Your task to perform on an android device: Show me popular games on the Play Store Image 0: 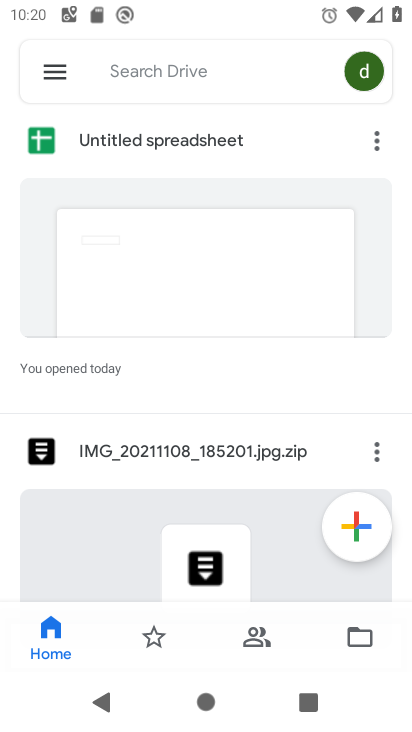
Step 0: press home button
Your task to perform on an android device: Show me popular games on the Play Store Image 1: 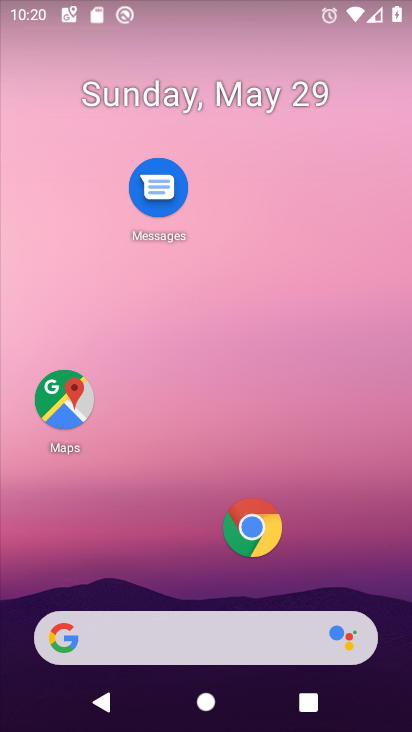
Step 1: drag from (194, 586) to (243, 4)
Your task to perform on an android device: Show me popular games on the Play Store Image 2: 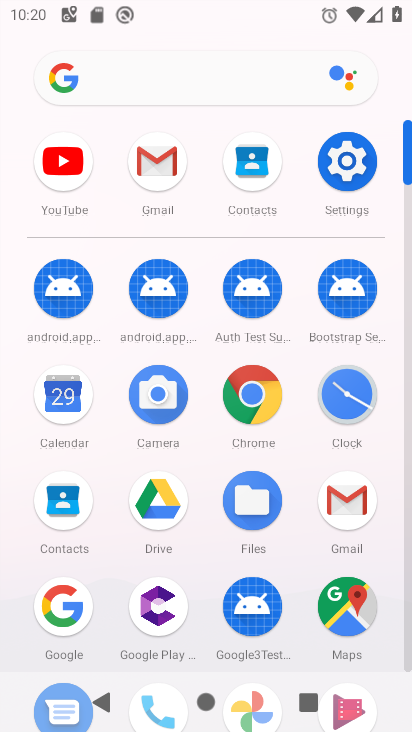
Step 2: drag from (219, 236) to (223, 94)
Your task to perform on an android device: Show me popular games on the Play Store Image 3: 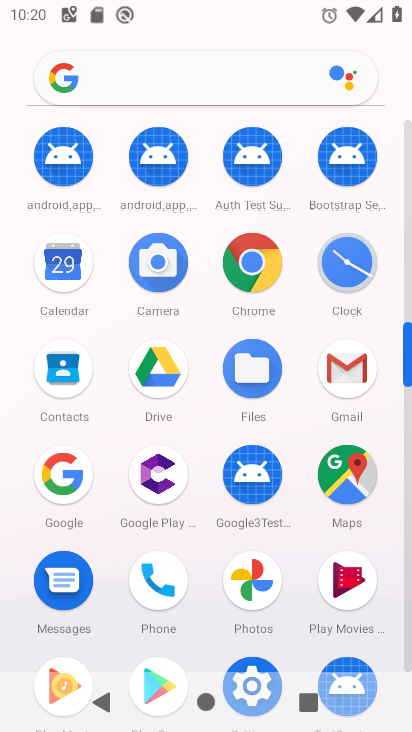
Step 3: drag from (201, 586) to (207, 185)
Your task to perform on an android device: Show me popular games on the Play Store Image 4: 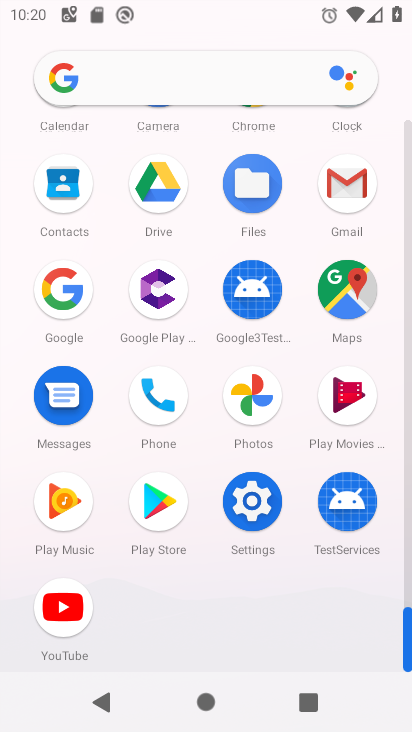
Step 4: click (162, 499)
Your task to perform on an android device: Show me popular games on the Play Store Image 5: 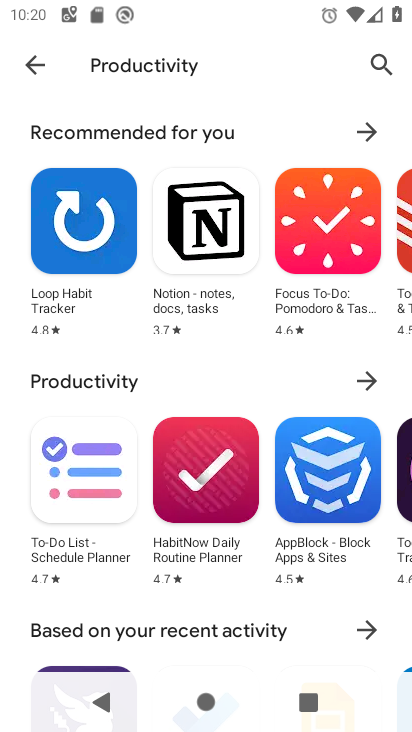
Step 5: click (40, 63)
Your task to perform on an android device: Show me popular games on the Play Store Image 6: 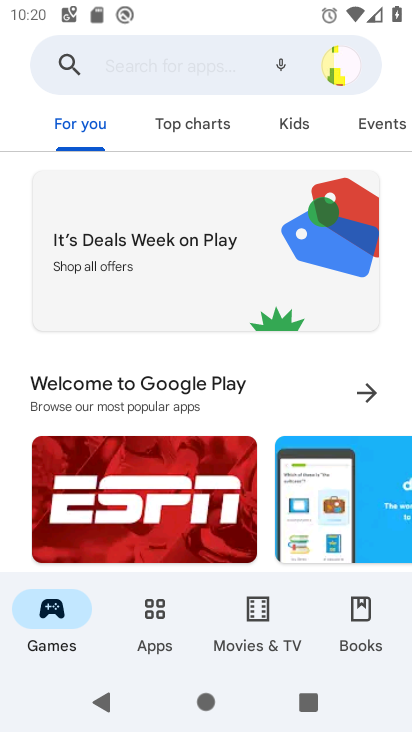
Step 6: drag from (197, 477) to (209, 16)
Your task to perform on an android device: Show me popular games on the Play Store Image 7: 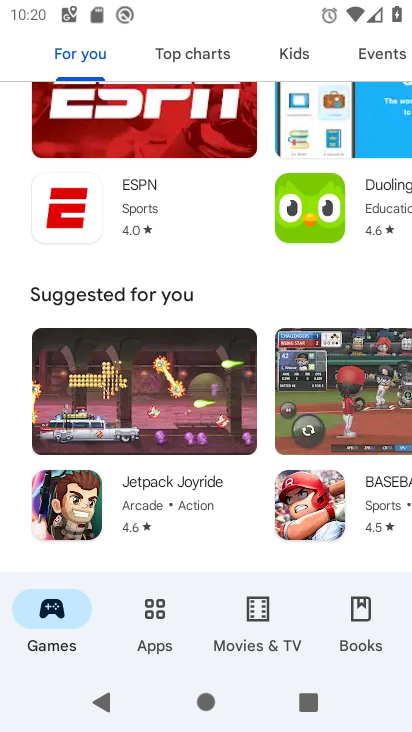
Step 7: drag from (234, 514) to (229, 120)
Your task to perform on an android device: Show me popular games on the Play Store Image 8: 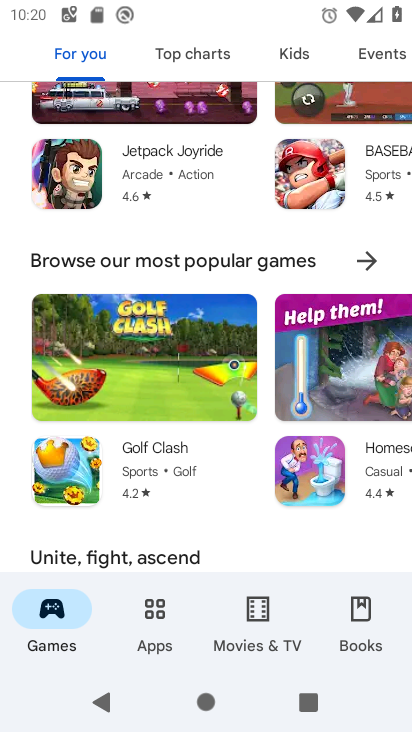
Step 8: click (372, 255)
Your task to perform on an android device: Show me popular games on the Play Store Image 9: 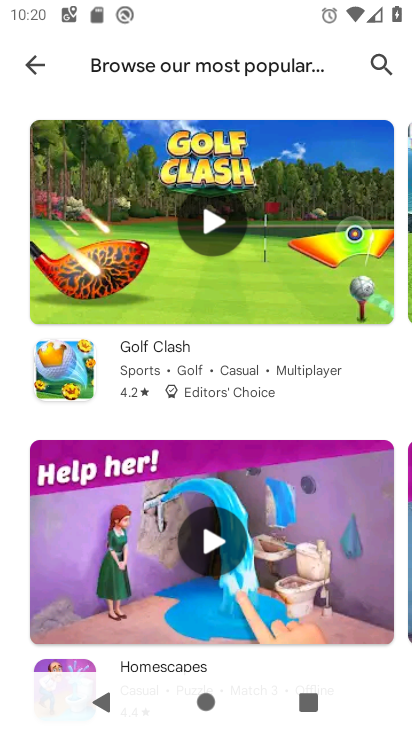
Step 9: task complete